Your task to perform on an android device: What's the weather going to be this weekend? Image 0: 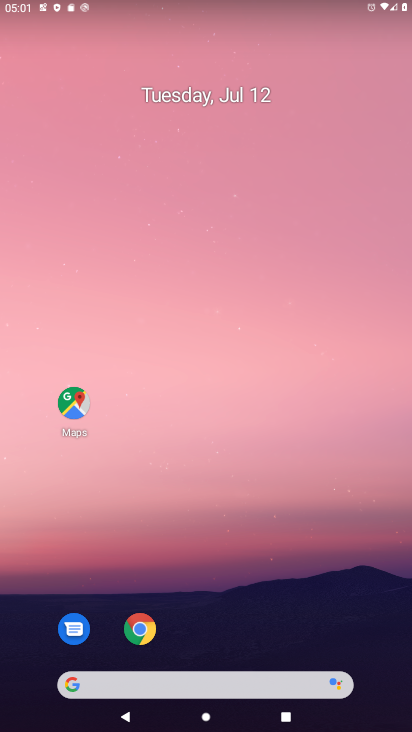
Step 0: press home button
Your task to perform on an android device: What's the weather going to be this weekend? Image 1: 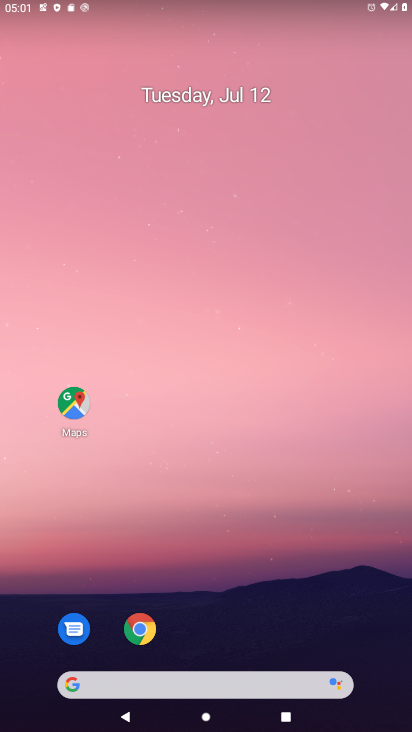
Step 1: click (78, 687)
Your task to perform on an android device: What's the weather going to be this weekend? Image 2: 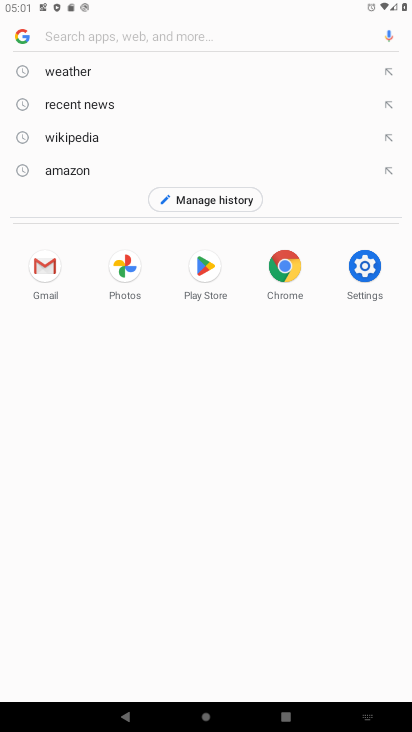
Step 2: type "weather going to be this weekend?"
Your task to perform on an android device: What's the weather going to be this weekend? Image 3: 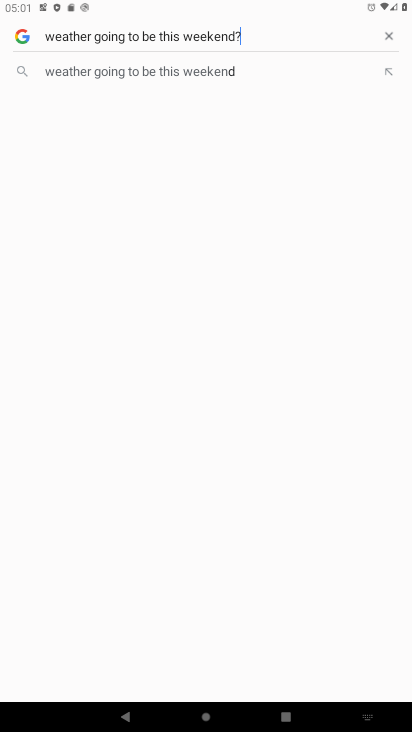
Step 3: press enter
Your task to perform on an android device: What's the weather going to be this weekend? Image 4: 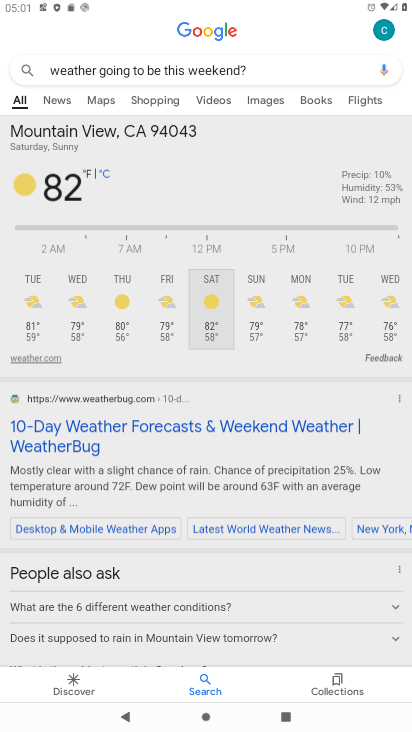
Step 4: task complete